Your task to perform on an android device: allow cookies in the chrome app Image 0: 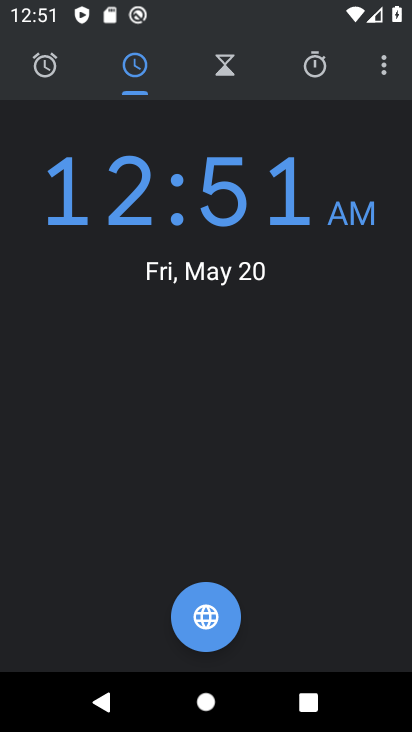
Step 0: press home button
Your task to perform on an android device: allow cookies in the chrome app Image 1: 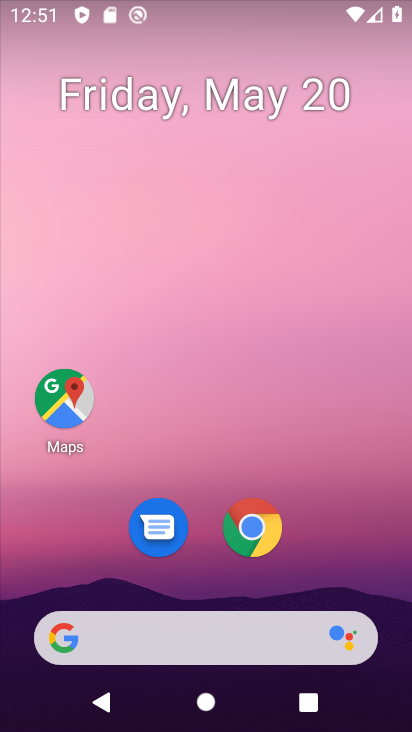
Step 1: click (264, 534)
Your task to perform on an android device: allow cookies in the chrome app Image 2: 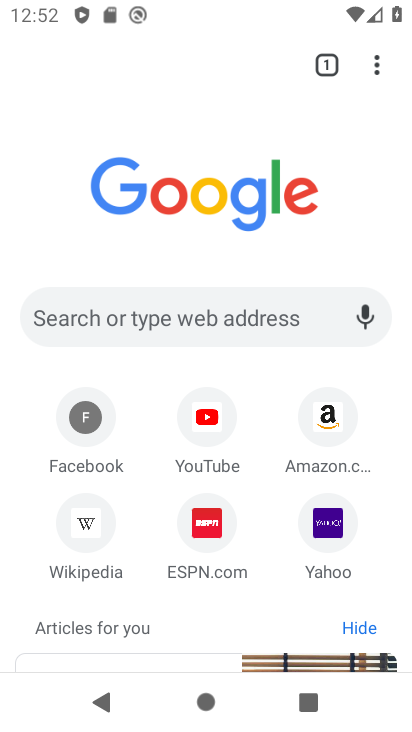
Step 2: click (373, 70)
Your task to perform on an android device: allow cookies in the chrome app Image 3: 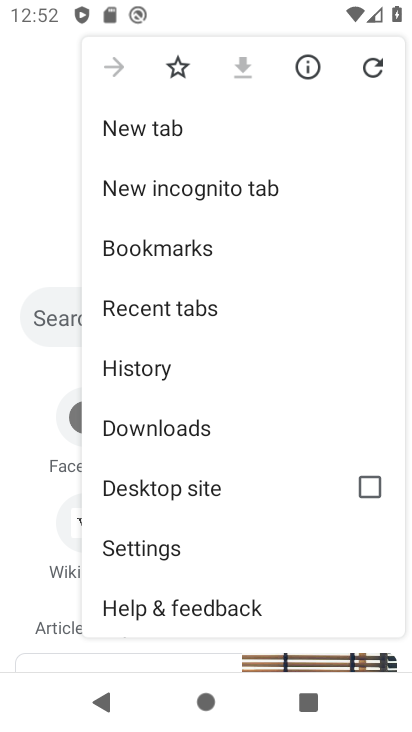
Step 3: click (204, 544)
Your task to perform on an android device: allow cookies in the chrome app Image 4: 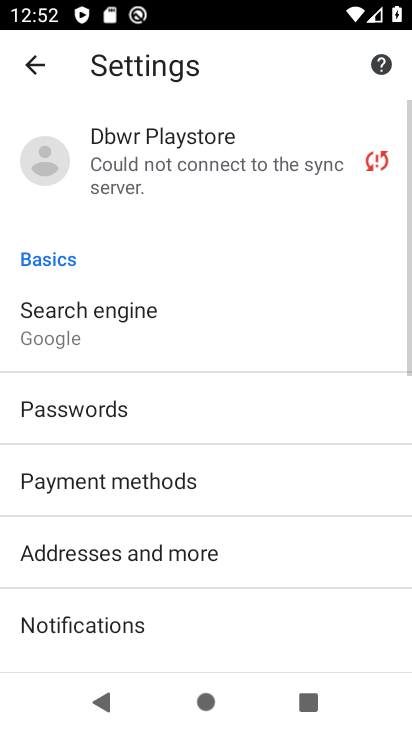
Step 4: drag from (259, 488) to (267, 115)
Your task to perform on an android device: allow cookies in the chrome app Image 5: 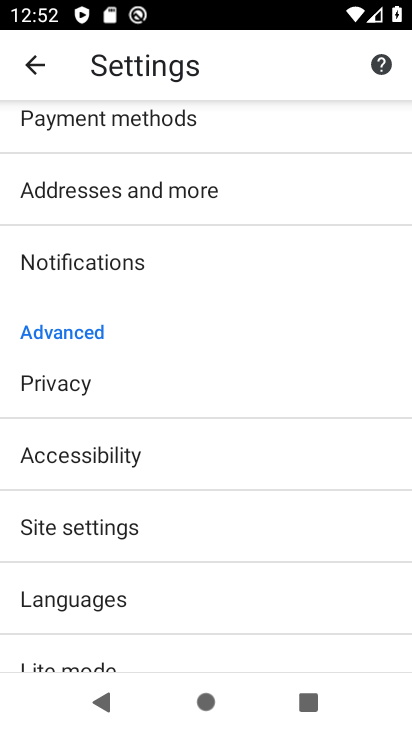
Step 5: click (163, 528)
Your task to perform on an android device: allow cookies in the chrome app Image 6: 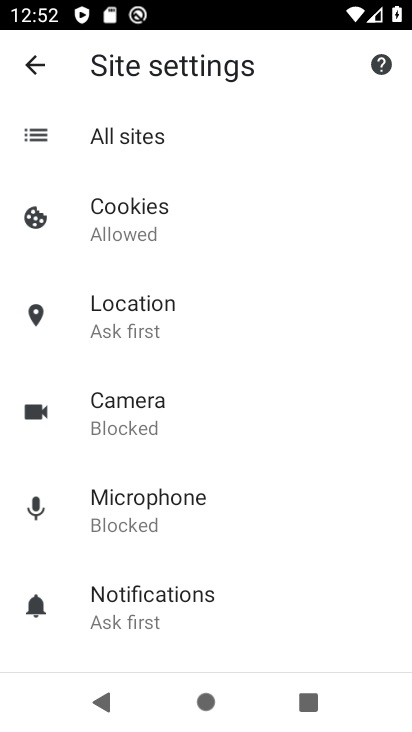
Step 6: task complete